Your task to perform on an android device: Open Yahoo.com Image 0: 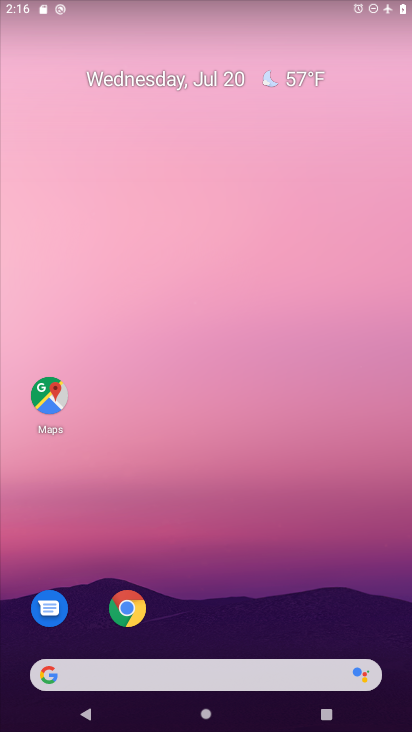
Step 0: click (238, 669)
Your task to perform on an android device: Open Yahoo.com Image 1: 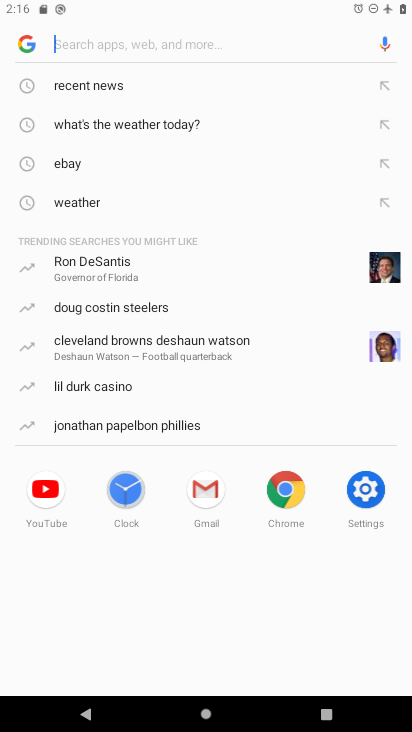
Step 1: click (222, 47)
Your task to perform on an android device: Open Yahoo.com Image 2: 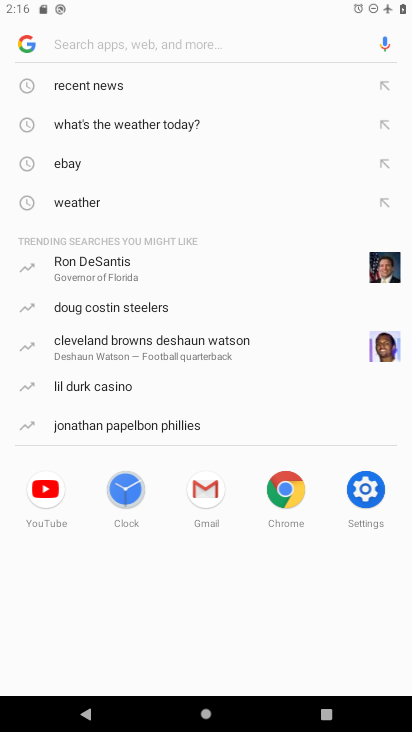
Step 2: type "yahoo.com"
Your task to perform on an android device: Open Yahoo.com Image 3: 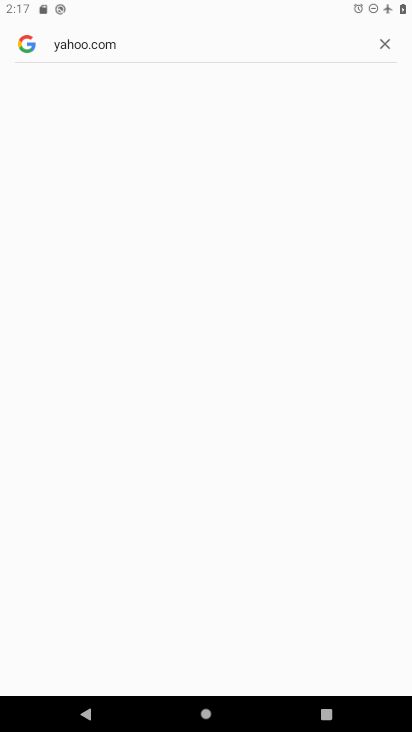
Step 3: task complete